Your task to perform on an android device: check data usage Image 0: 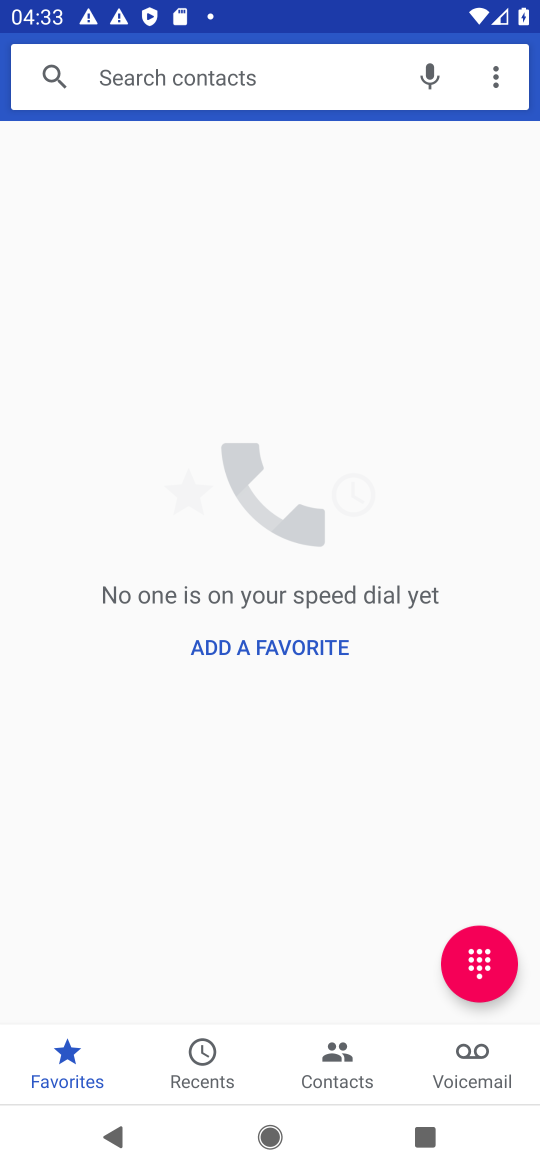
Step 0: press home button
Your task to perform on an android device: check data usage Image 1: 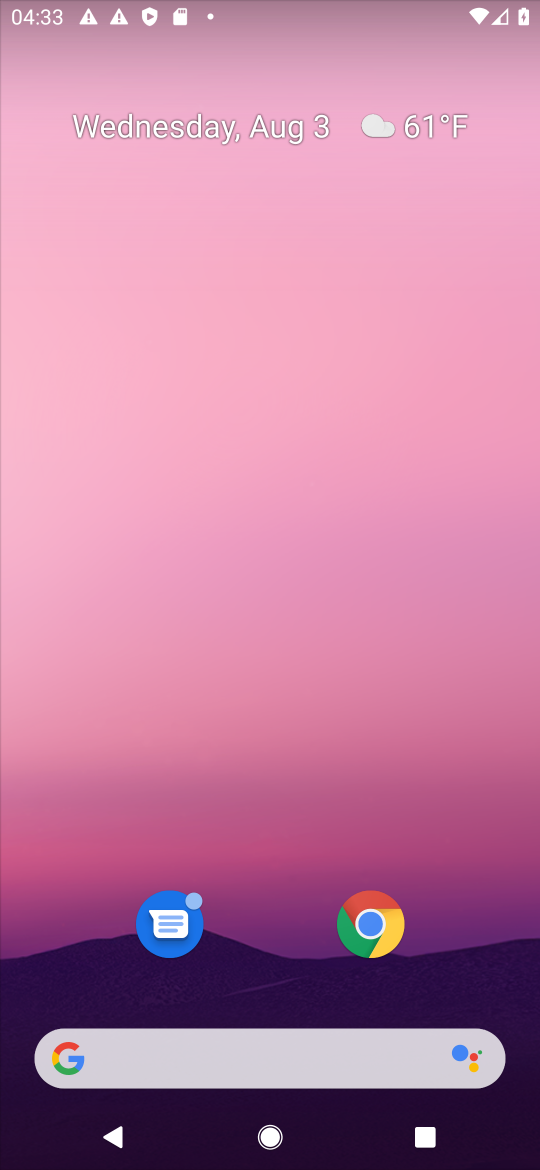
Step 1: drag from (256, 942) to (346, 117)
Your task to perform on an android device: check data usage Image 2: 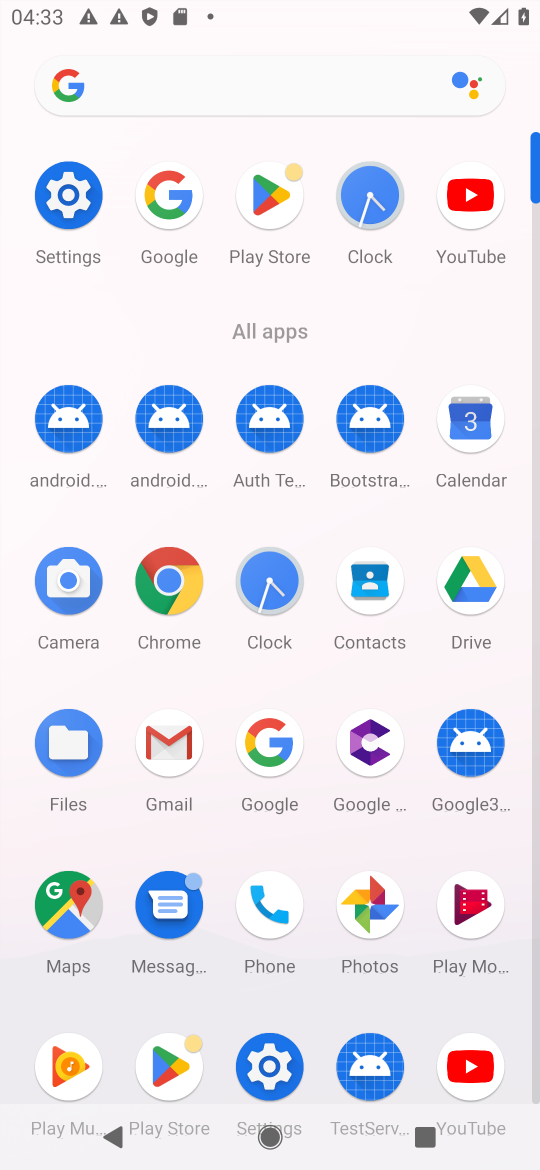
Step 2: click (67, 194)
Your task to perform on an android device: check data usage Image 3: 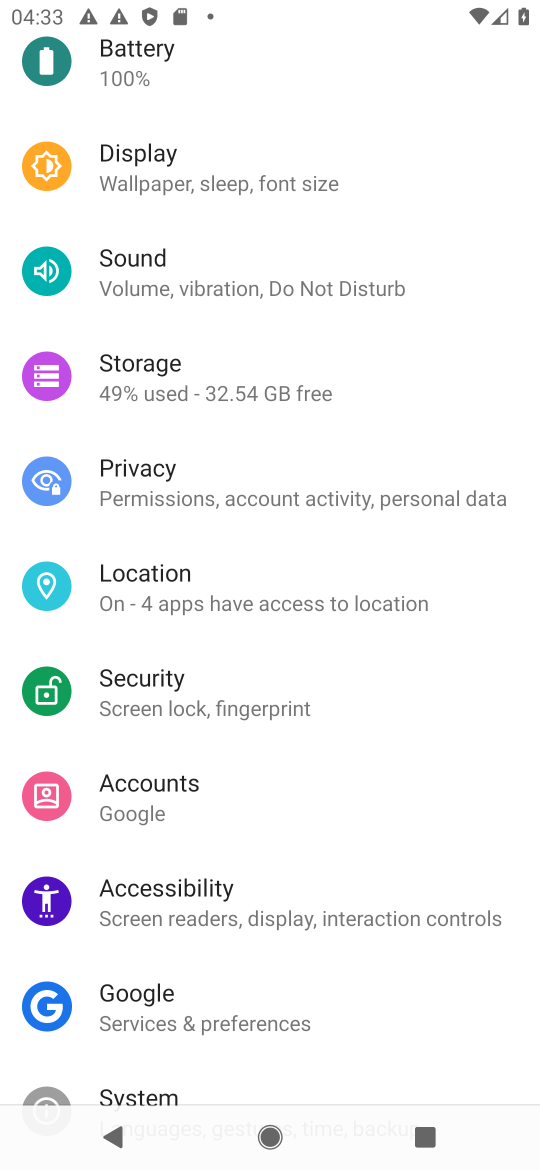
Step 3: drag from (177, 285) to (156, 851)
Your task to perform on an android device: check data usage Image 4: 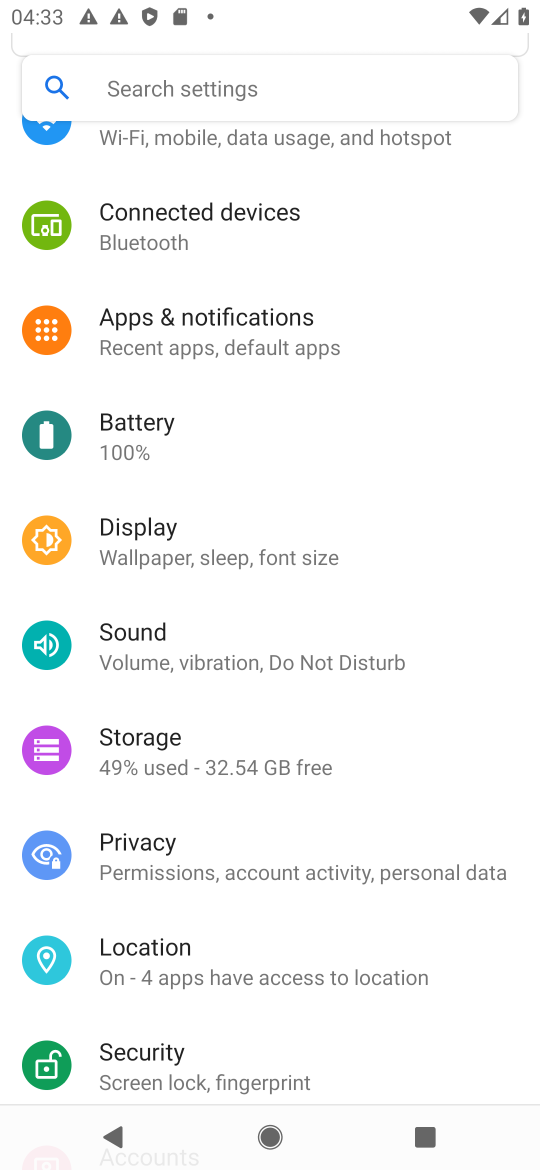
Step 4: drag from (298, 288) to (283, 948)
Your task to perform on an android device: check data usage Image 5: 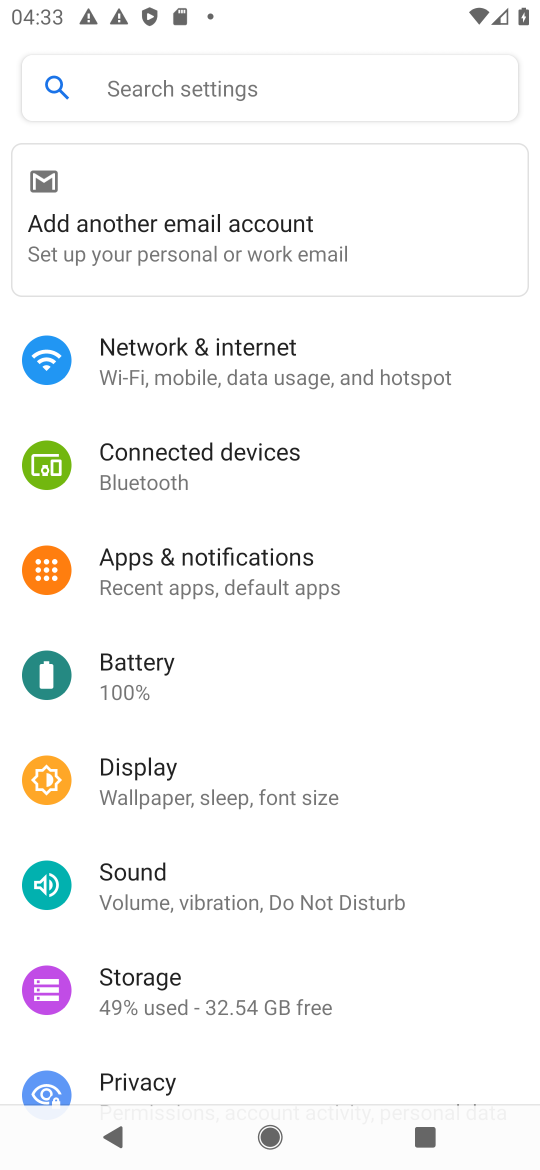
Step 5: click (283, 364)
Your task to perform on an android device: check data usage Image 6: 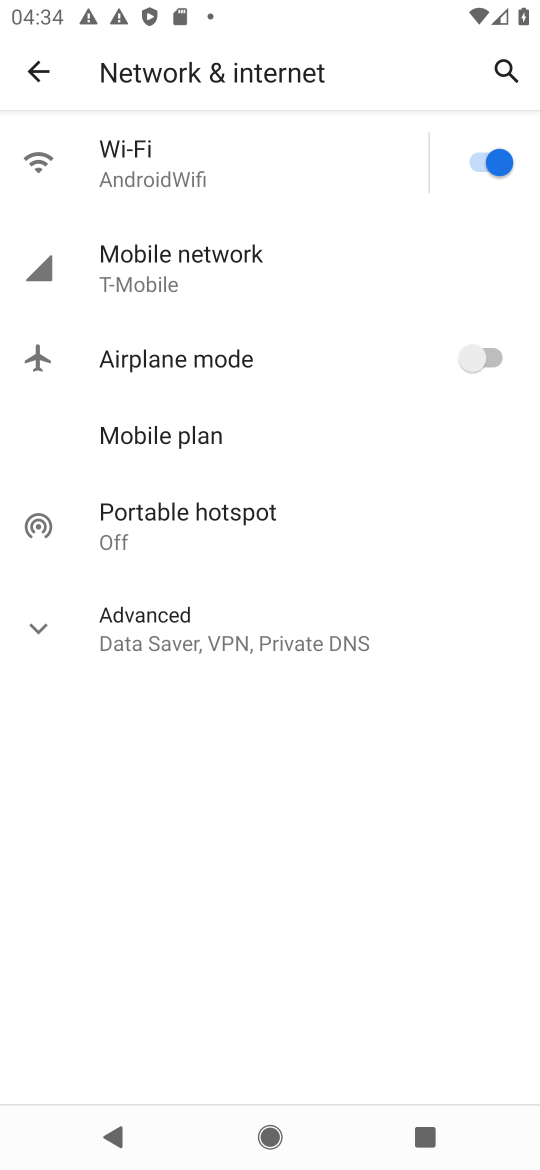
Step 6: click (283, 260)
Your task to perform on an android device: check data usage Image 7: 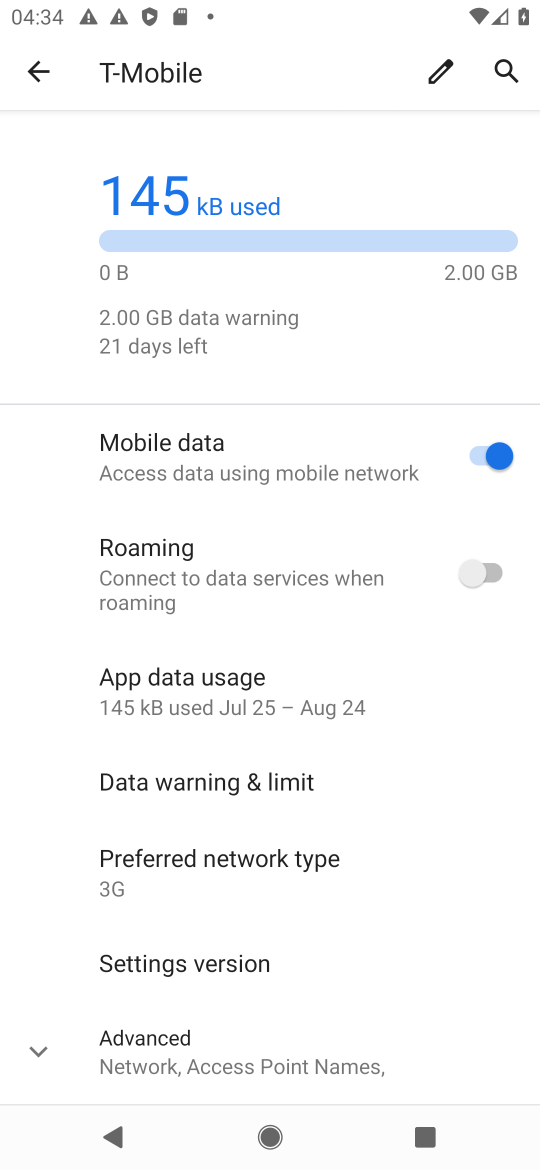
Step 7: task complete